Your task to perform on an android device: What's the weather going to be tomorrow? Image 0: 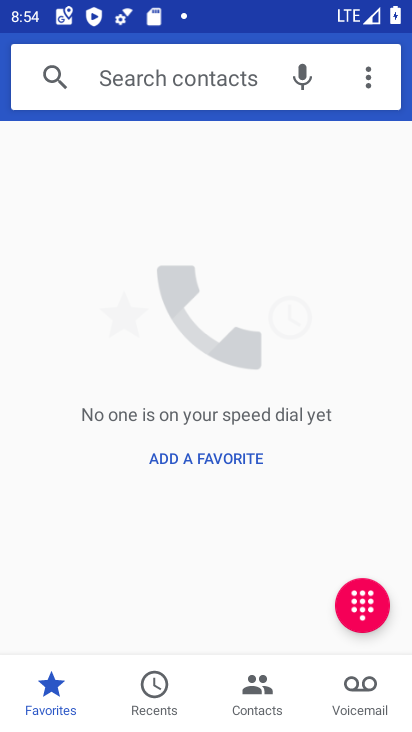
Step 0: press home button
Your task to perform on an android device: What's the weather going to be tomorrow? Image 1: 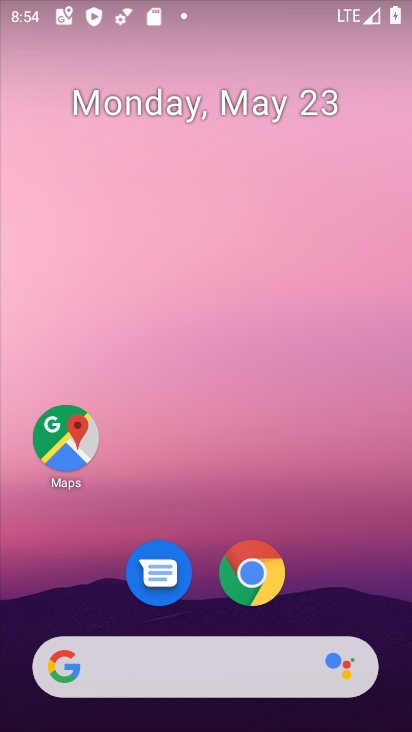
Step 1: click (217, 667)
Your task to perform on an android device: What's the weather going to be tomorrow? Image 2: 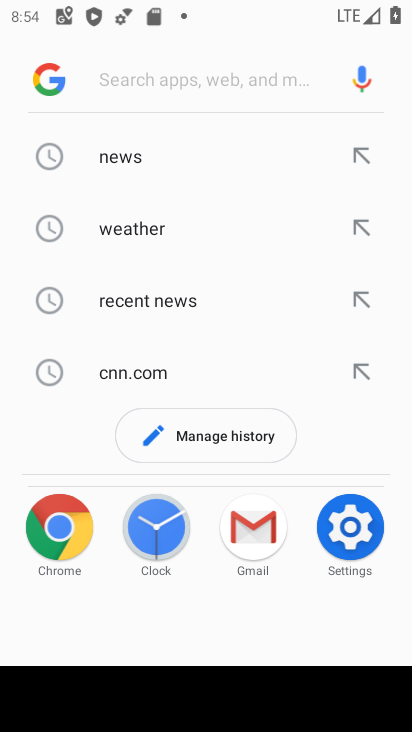
Step 2: click (134, 226)
Your task to perform on an android device: What's the weather going to be tomorrow? Image 3: 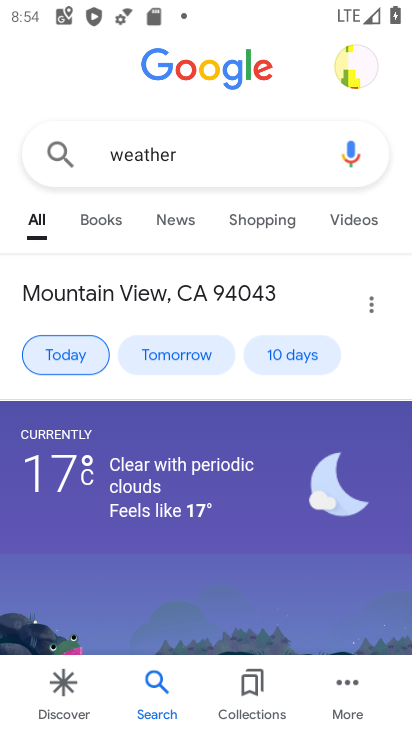
Step 3: click (71, 352)
Your task to perform on an android device: What's the weather going to be tomorrow? Image 4: 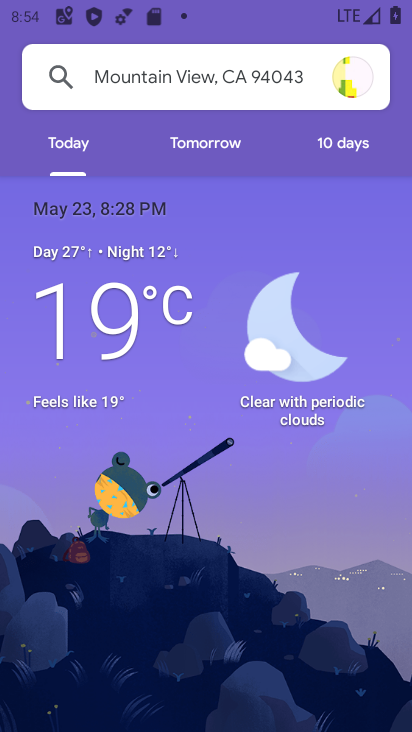
Step 4: click (193, 148)
Your task to perform on an android device: What's the weather going to be tomorrow? Image 5: 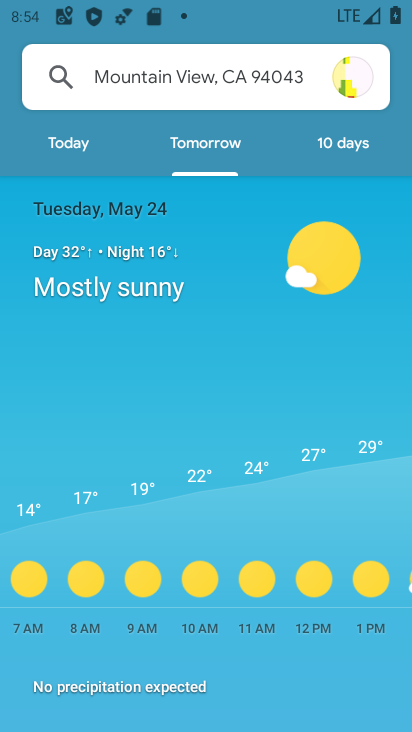
Step 5: task complete